Your task to perform on an android device: open the mobile data screen to see how much data has been used Image 0: 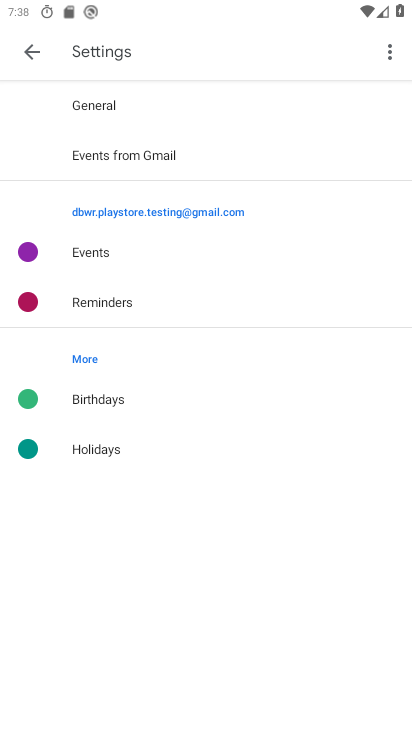
Step 0: press home button
Your task to perform on an android device: open the mobile data screen to see how much data has been used Image 1: 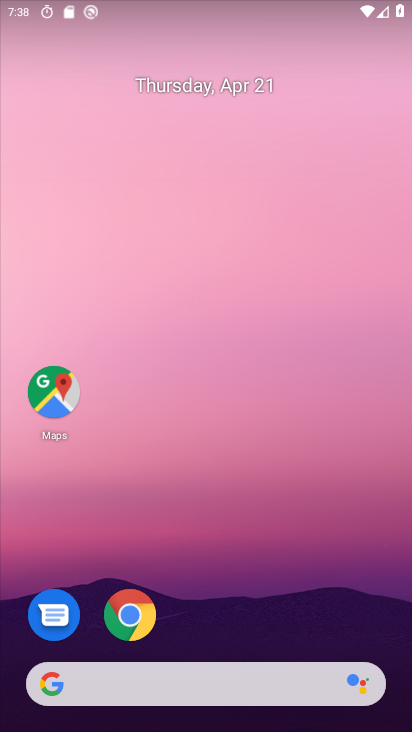
Step 1: drag from (181, 683) to (349, 111)
Your task to perform on an android device: open the mobile data screen to see how much data has been used Image 2: 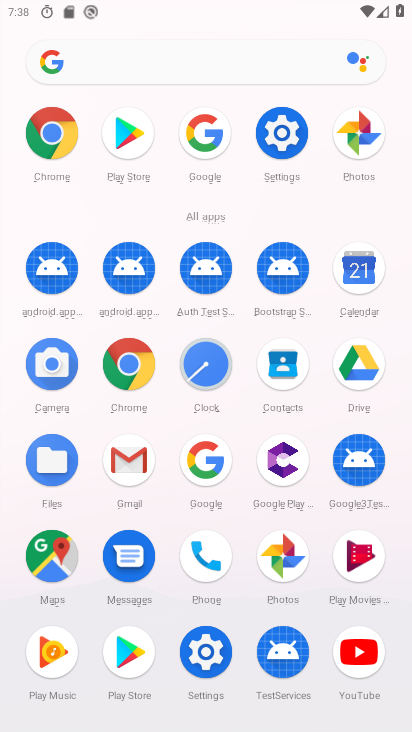
Step 2: click (291, 146)
Your task to perform on an android device: open the mobile data screen to see how much data has been used Image 3: 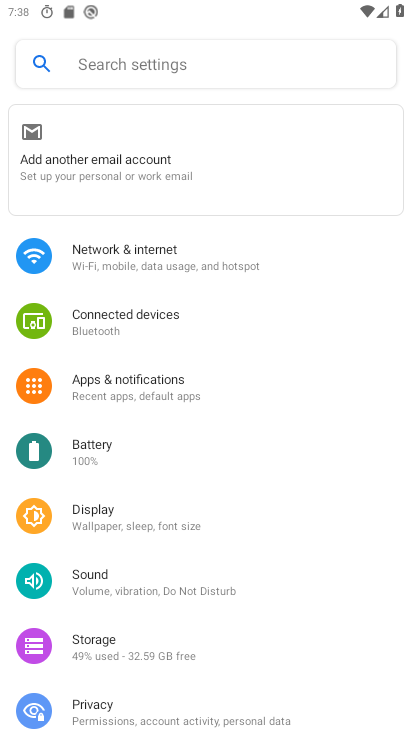
Step 3: click (171, 255)
Your task to perform on an android device: open the mobile data screen to see how much data has been used Image 4: 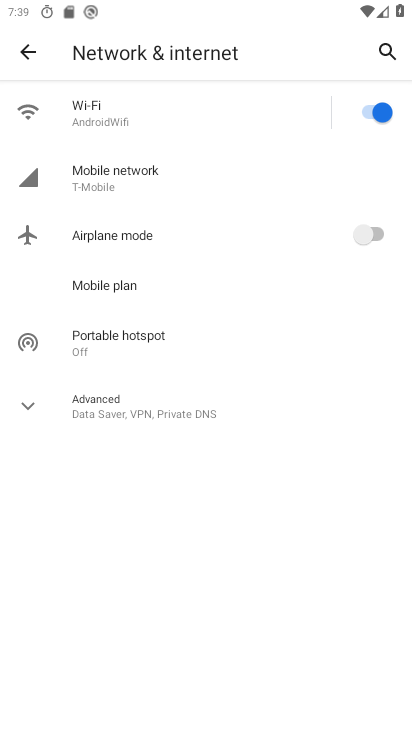
Step 4: click (148, 174)
Your task to perform on an android device: open the mobile data screen to see how much data has been used Image 5: 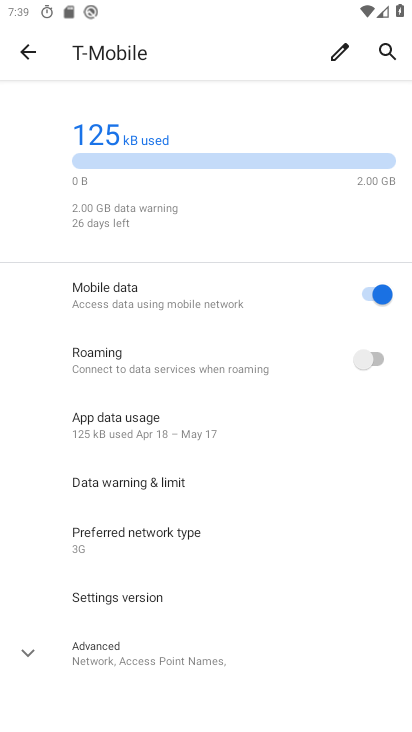
Step 5: task complete